Your task to perform on an android device: manage bookmarks in the chrome app Image 0: 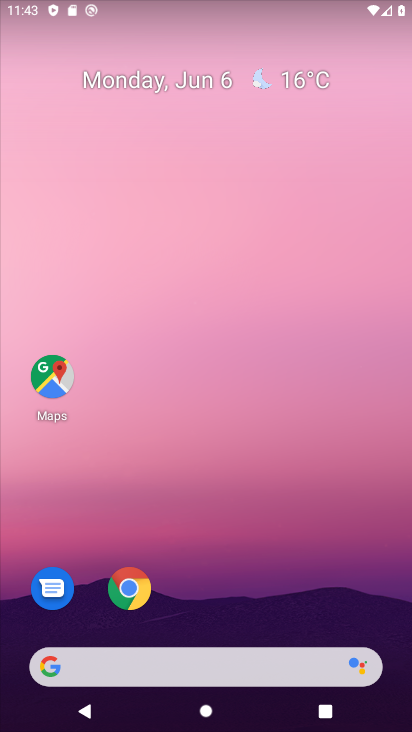
Step 0: click (140, 594)
Your task to perform on an android device: manage bookmarks in the chrome app Image 1: 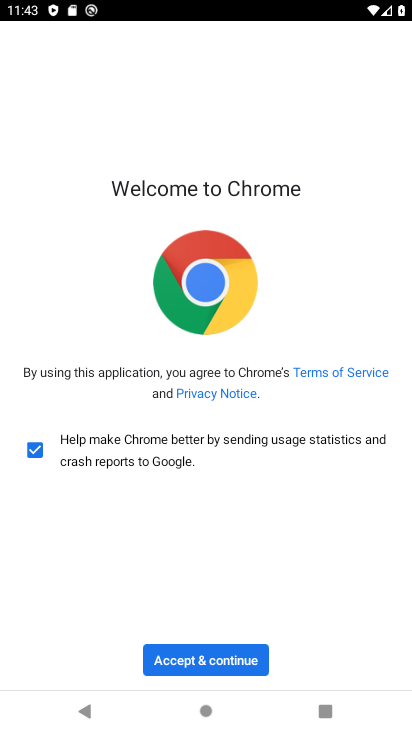
Step 1: click (220, 660)
Your task to perform on an android device: manage bookmarks in the chrome app Image 2: 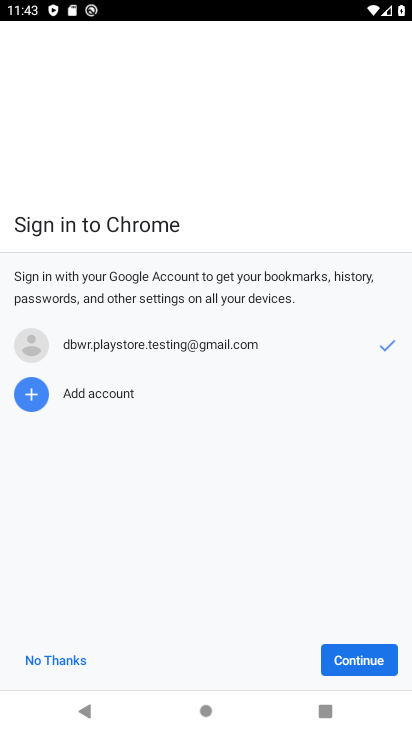
Step 2: click (362, 654)
Your task to perform on an android device: manage bookmarks in the chrome app Image 3: 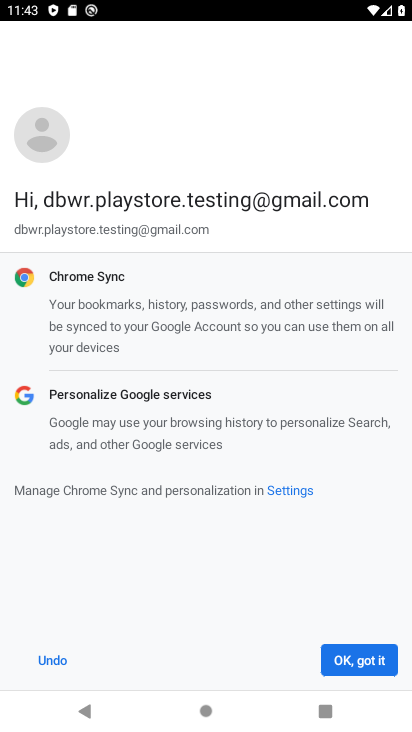
Step 3: click (362, 654)
Your task to perform on an android device: manage bookmarks in the chrome app Image 4: 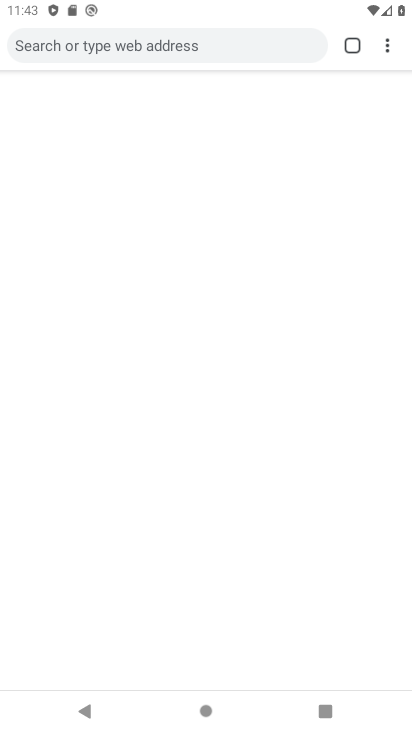
Step 4: click (379, 42)
Your task to perform on an android device: manage bookmarks in the chrome app Image 5: 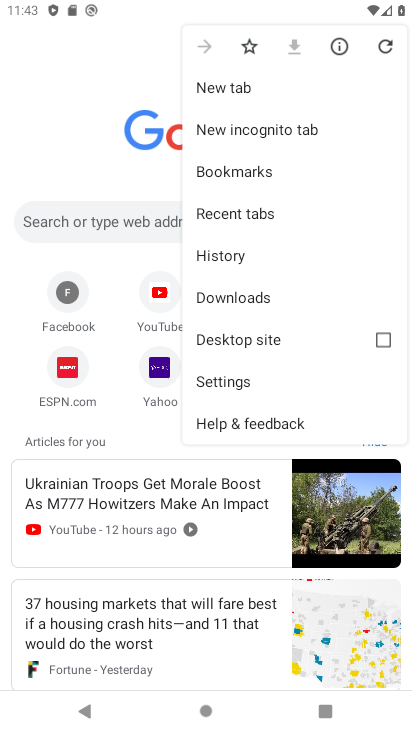
Step 5: click (270, 178)
Your task to perform on an android device: manage bookmarks in the chrome app Image 6: 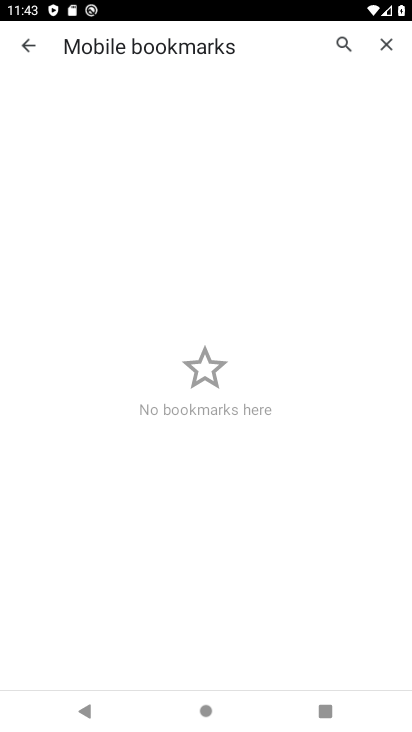
Step 6: task complete